Your task to perform on an android device: Open battery settings Image 0: 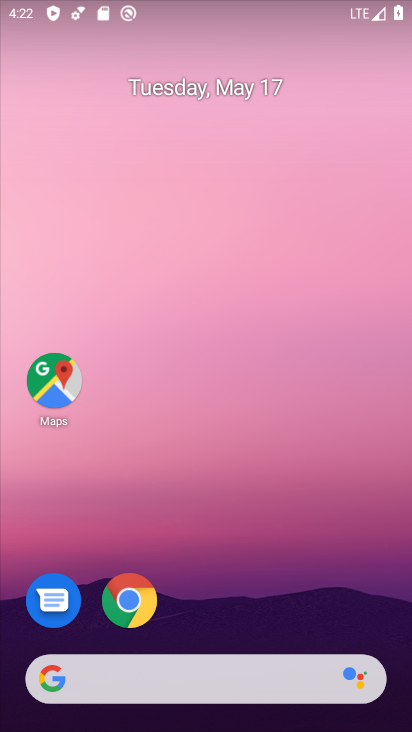
Step 0: drag from (397, 621) to (335, 82)
Your task to perform on an android device: Open battery settings Image 1: 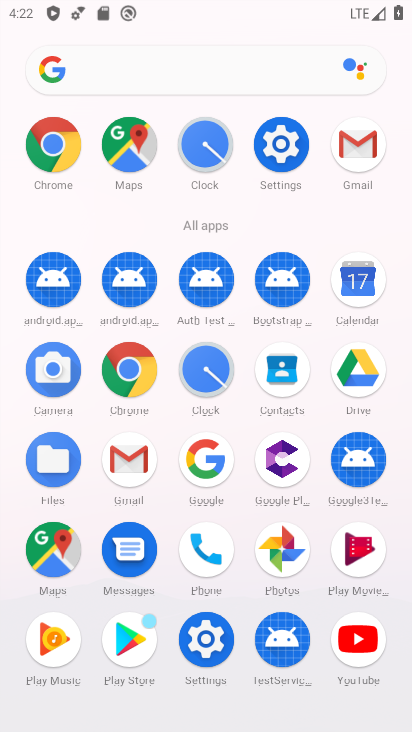
Step 1: click (202, 626)
Your task to perform on an android device: Open battery settings Image 2: 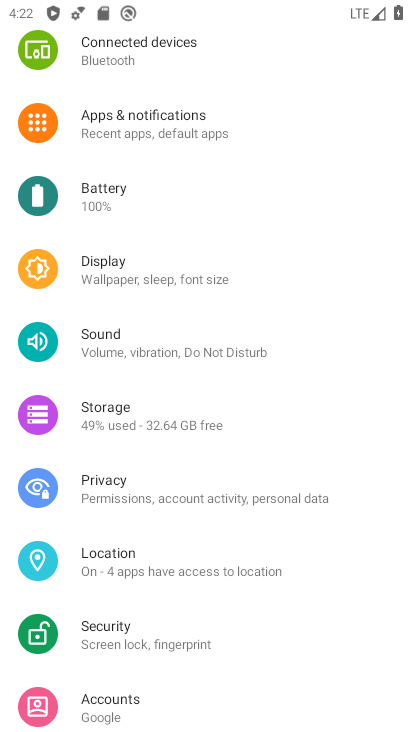
Step 2: click (116, 180)
Your task to perform on an android device: Open battery settings Image 3: 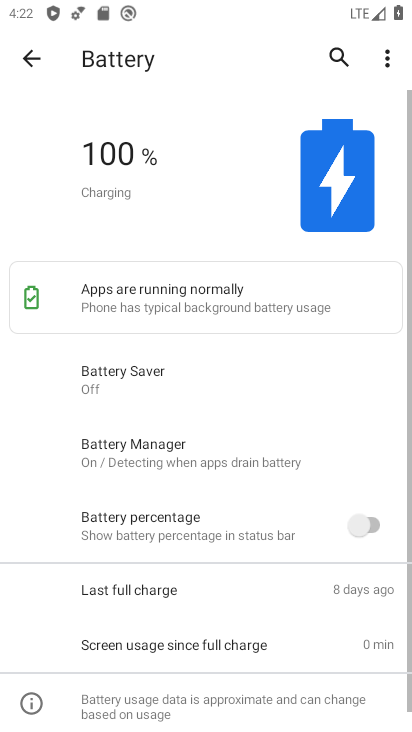
Step 3: task complete